Your task to perform on an android device: Is it going to rain this weekend? Image 0: 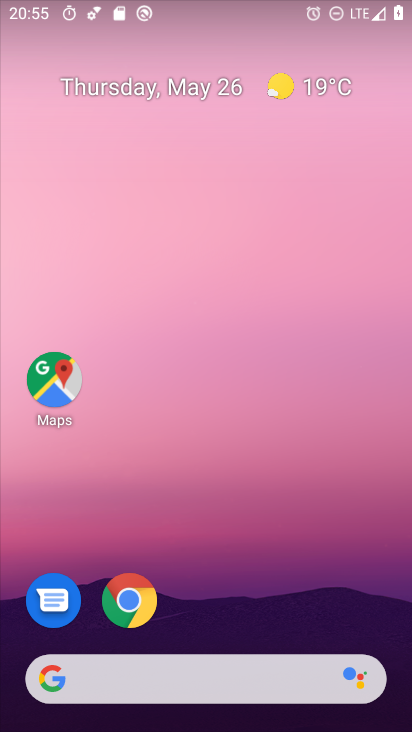
Step 0: press home button
Your task to perform on an android device: Is it going to rain this weekend? Image 1: 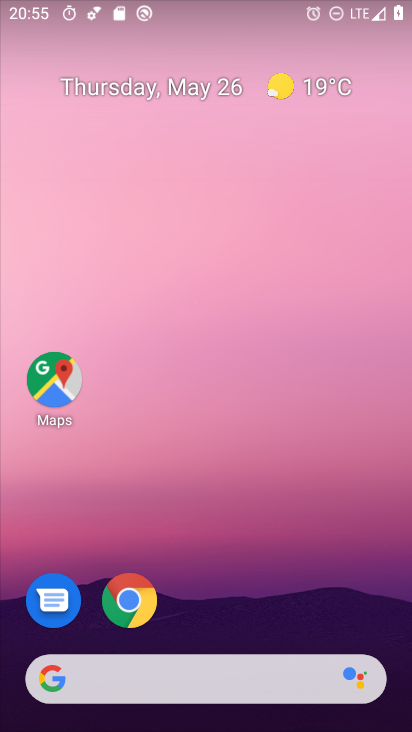
Step 1: click (237, 191)
Your task to perform on an android device: Is it going to rain this weekend? Image 2: 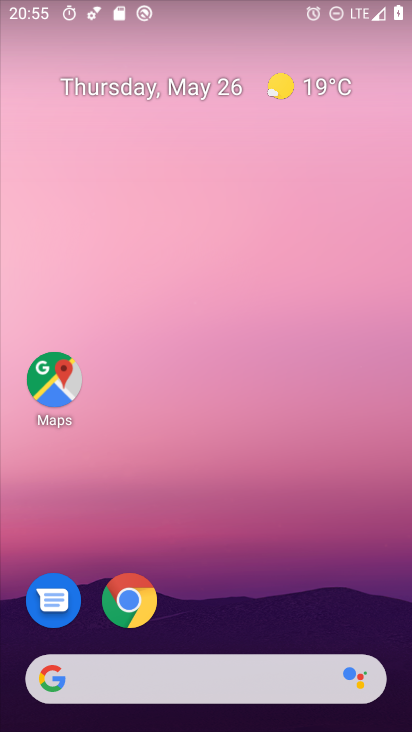
Step 2: drag from (267, 628) to (220, 185)
Your task to perform on an android device: Is it going to rain this weekend? Image 3: 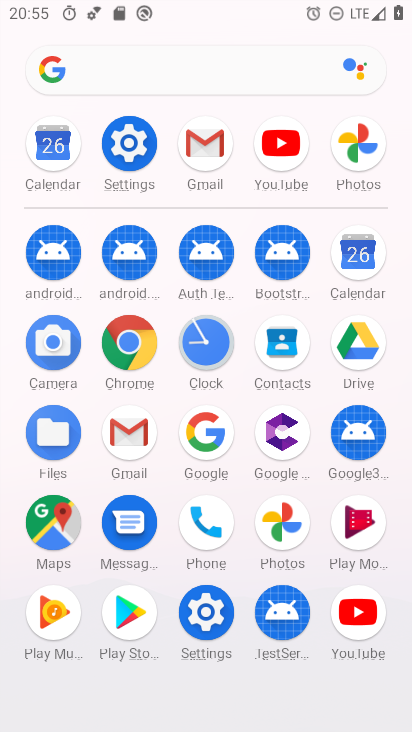
Step 3: click (208, 154)
Your task to perform on an android device: Is it going to rain this weekend? Image 4: 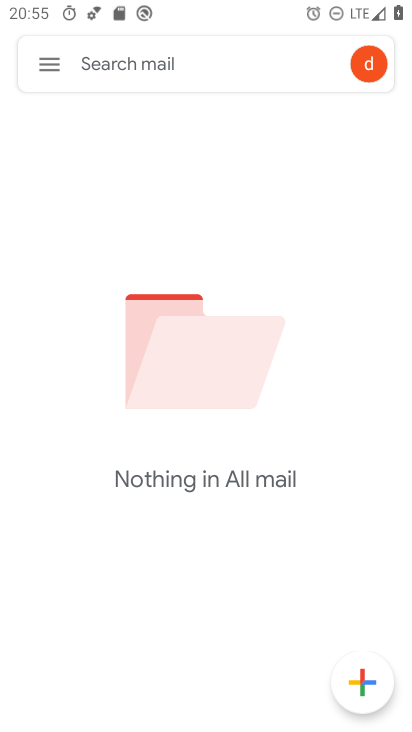
Step 4: click (54, 64)
Your task to perform on an android device: Is it going to rain this weekend? Image 5: 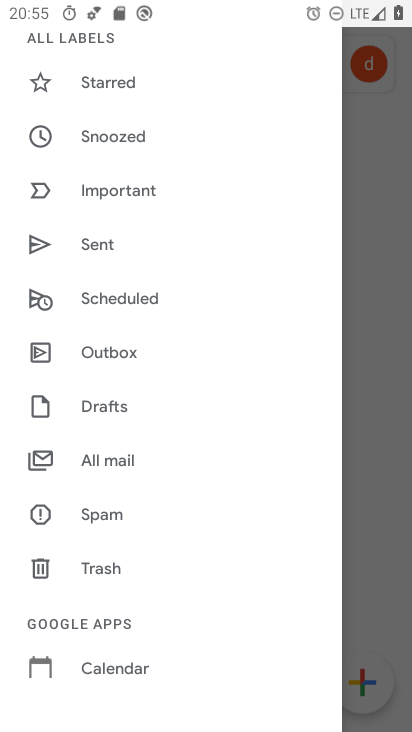
Step 5: click (91, 572)
Your task to perform on an android device: Is it going to rain this weekend? Image 6: 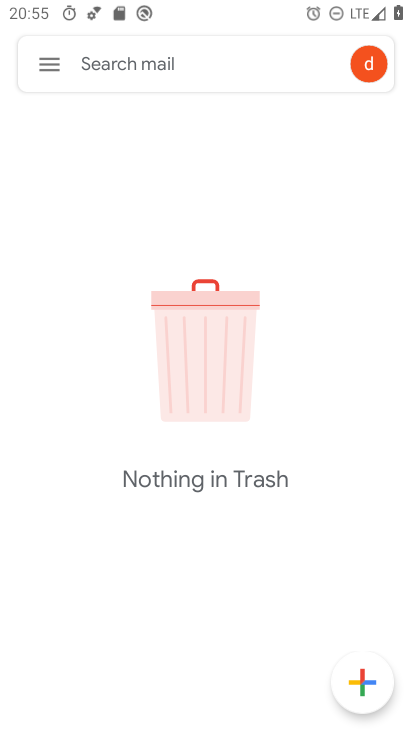
Step 6: task complete